Your task to perform on an android device: What's a good restaurant in Seattle? Image 0: 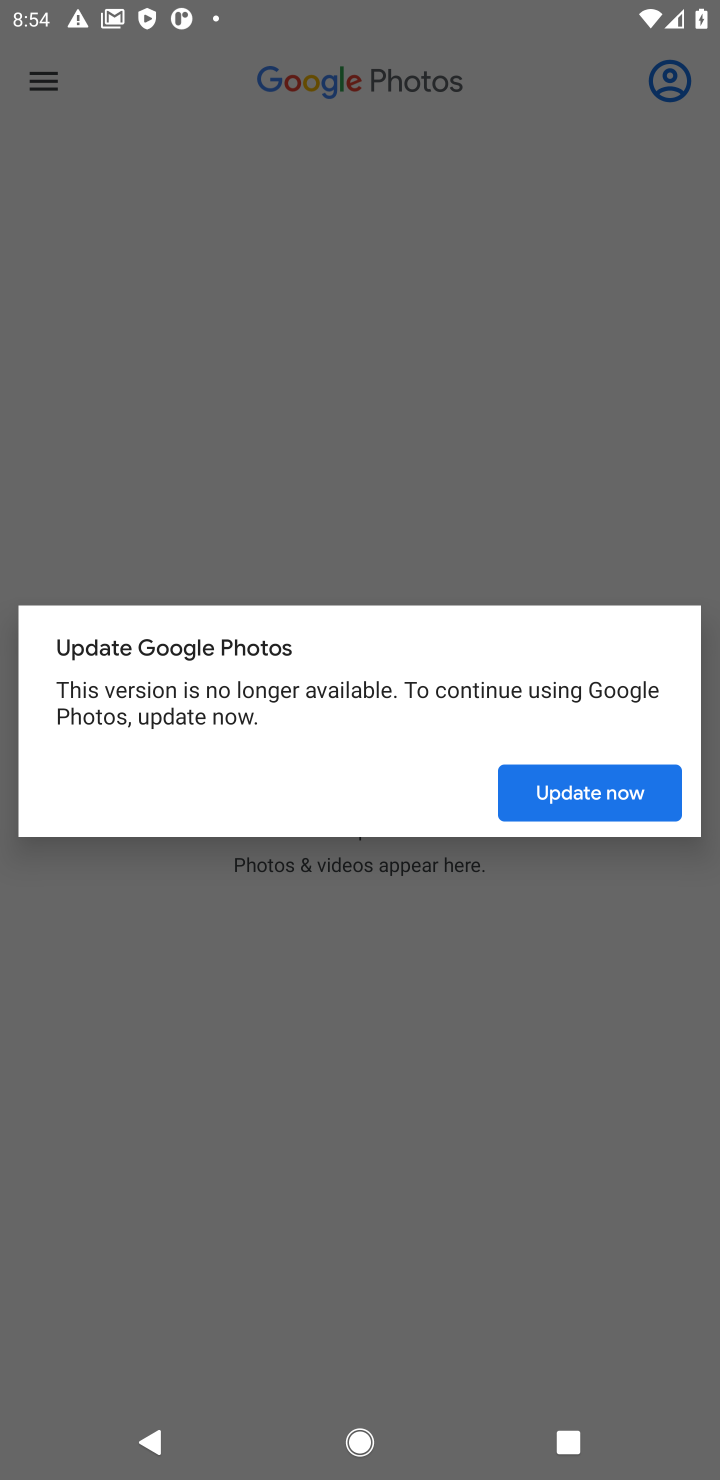
Step 0: press home button
Your task to perform on an android device: What's a good restaurant in Seattle? Image 1: 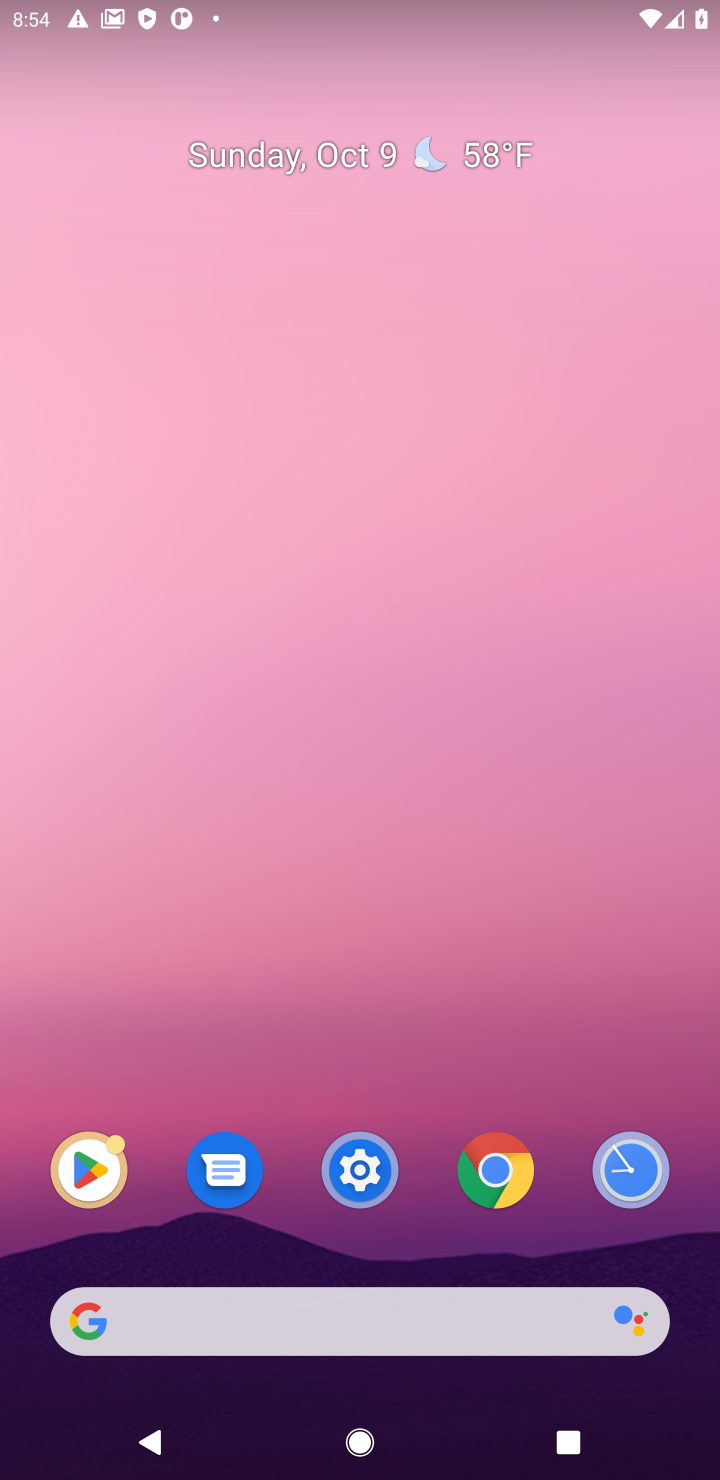
Step 1: click (277, 1322)
Your task to perform on an android device: What's a good restaurant in Seattle? Image 2: 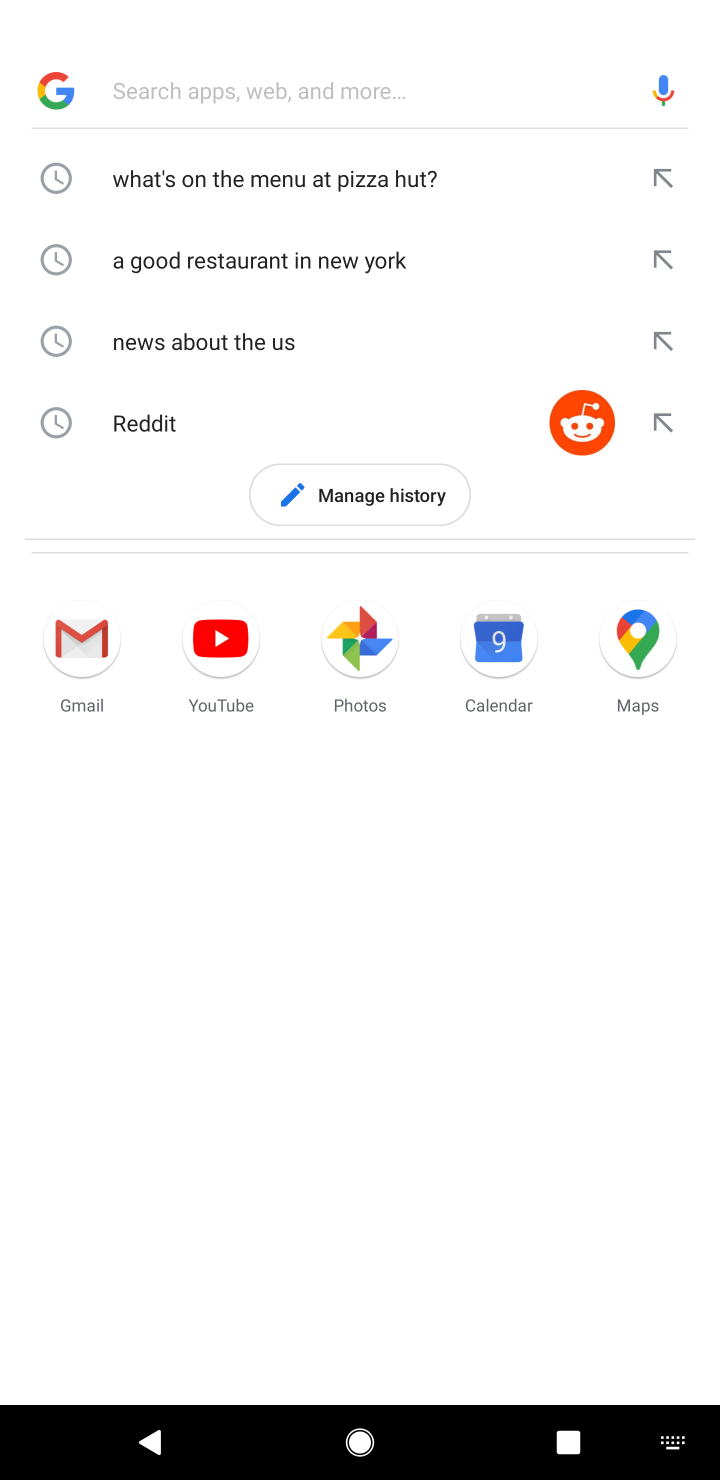
Step 2: type "What's a good restaurant in Seattle"
Your task to perform on an android device: What's a good restaurant in Seattle? Image 3: 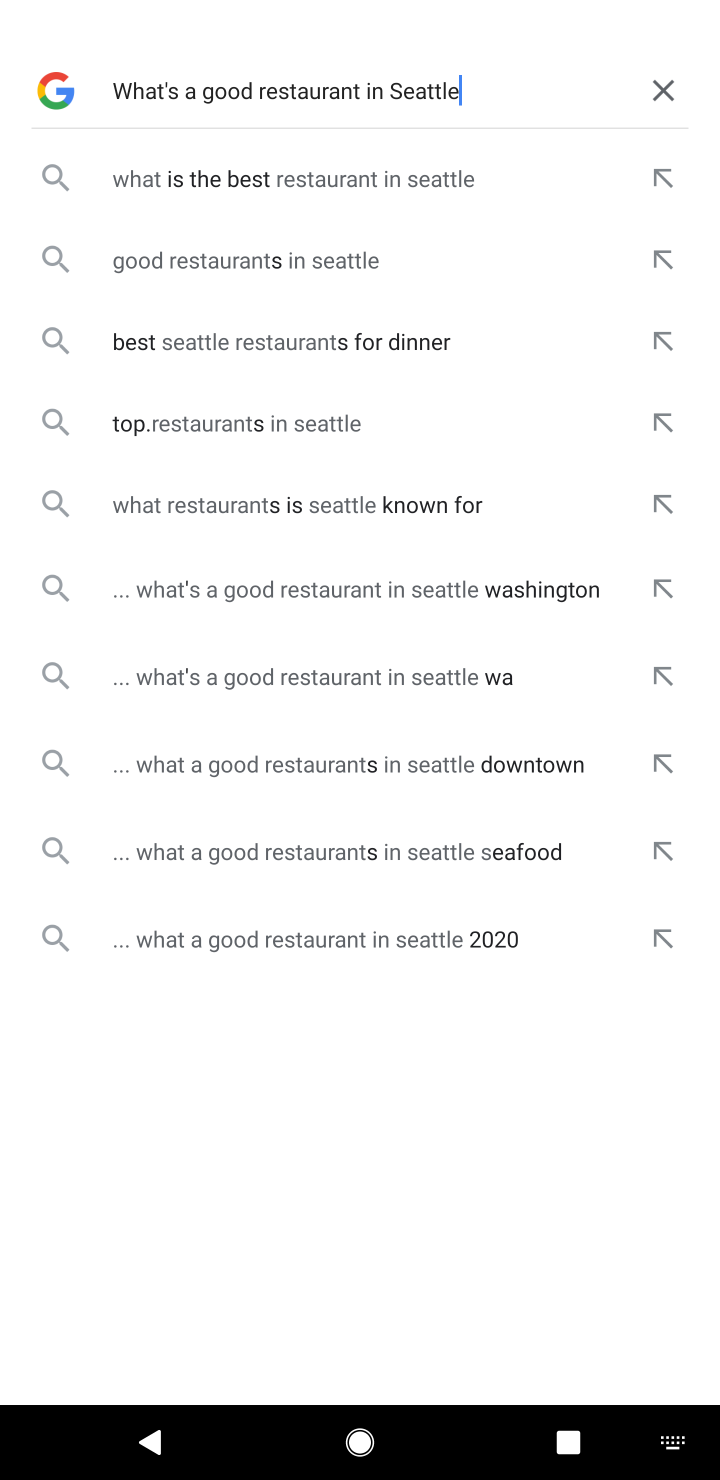
Step 3: click (277, 251)
Your task to perform on an android device: What's a good restaurant in Seattle? Image 4: 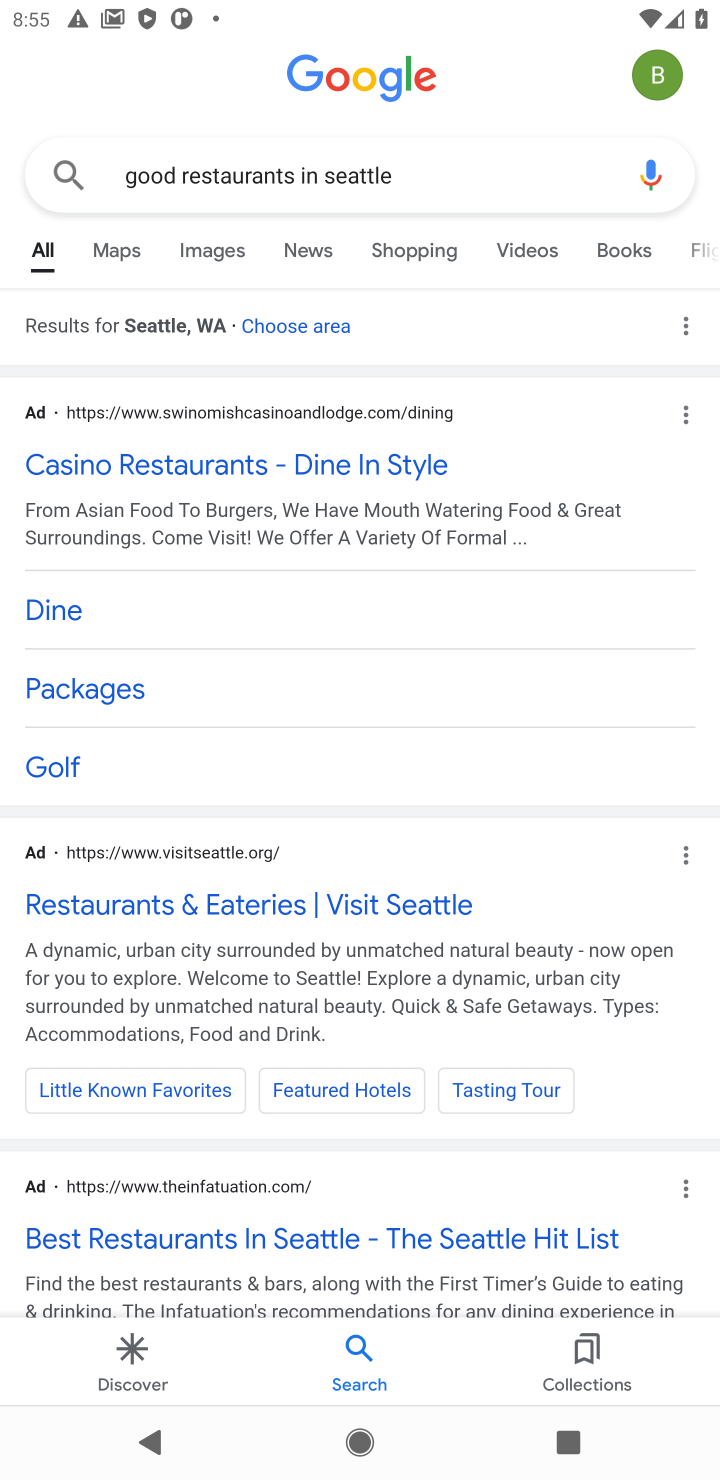
Step 4: task complete